Your task to perform on an android device: open app "Google Calendar" (install if not already installed) Image 0: 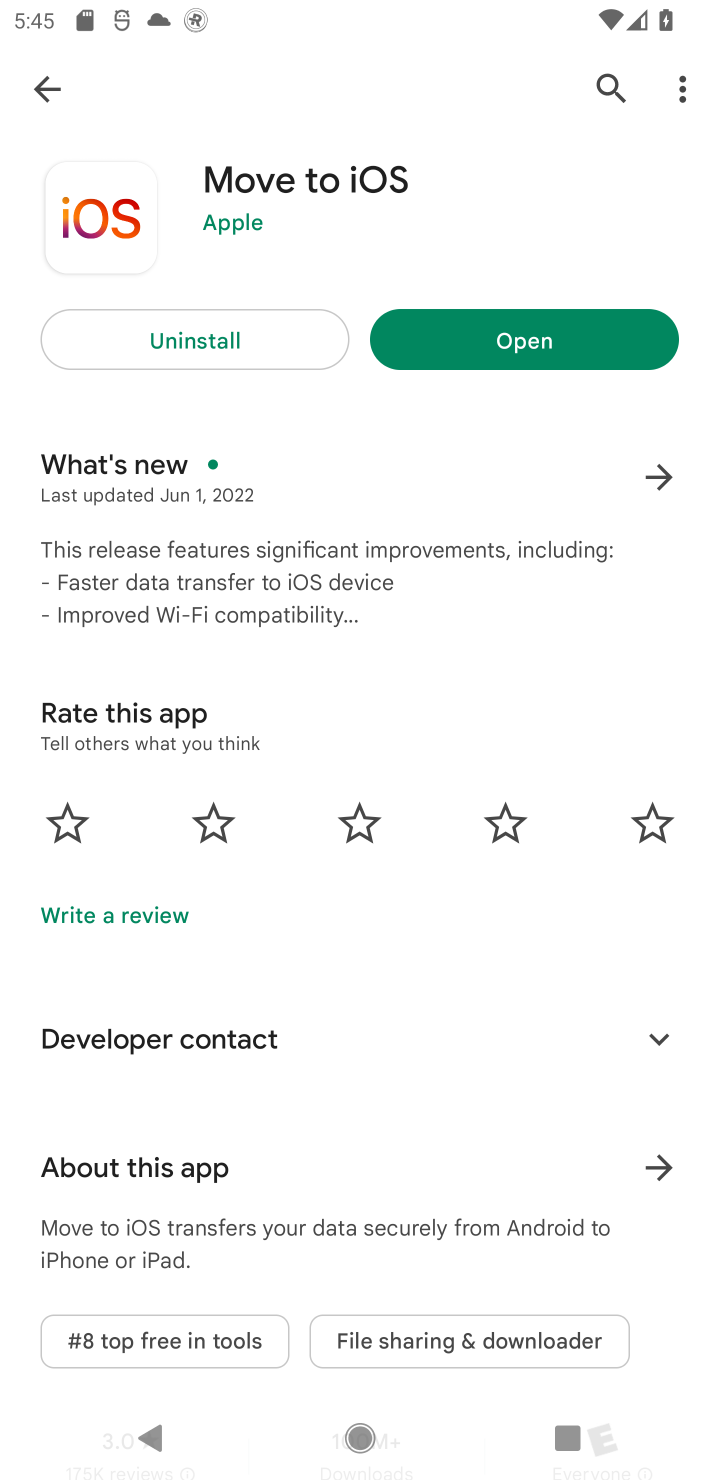
Step 0: press home button
Your task to perform on an android device: open app "Google Calendar" (install if not already installed) Image 1: 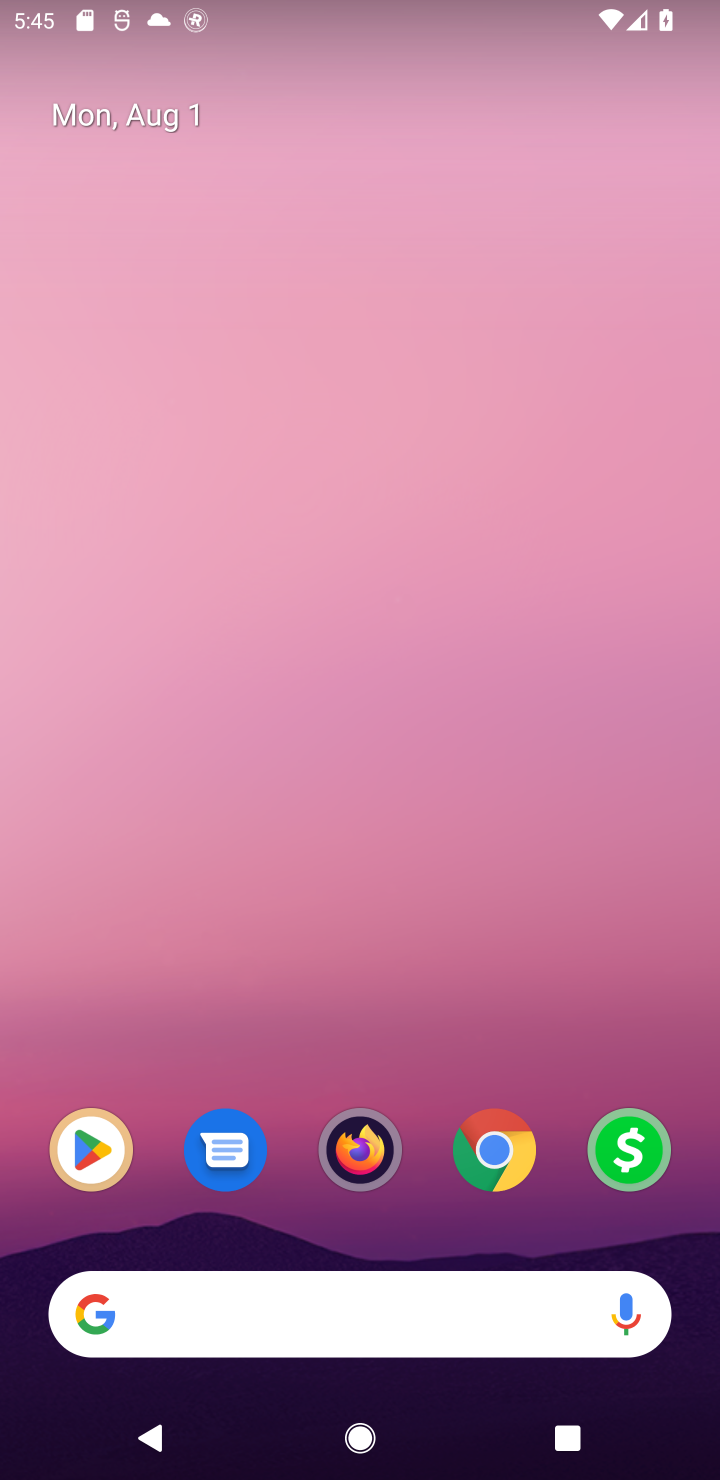
Step 1: task complete